Your task to perform on an android device: Clear the cart on target.com. Image 0: 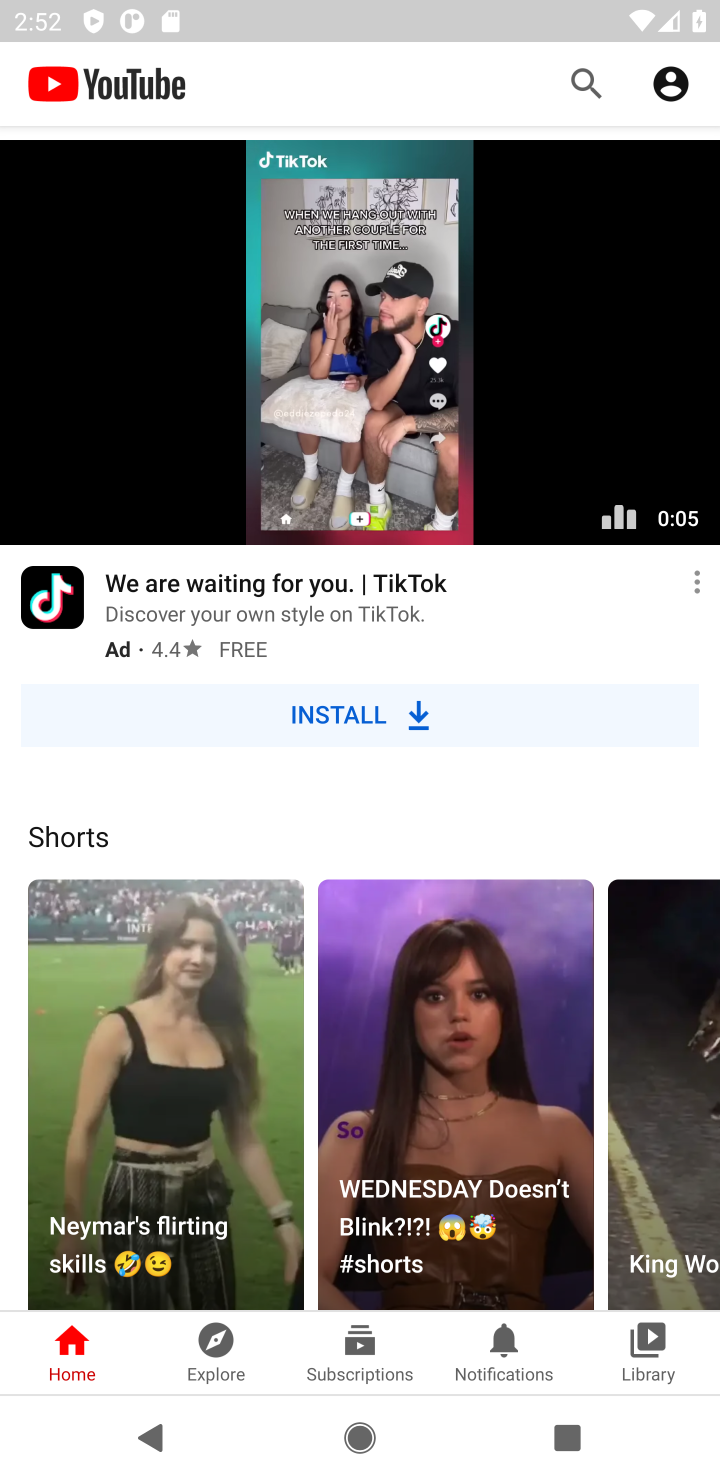
Step 0: press home button
Your task to perform on an android device: Clear the cart on target.com. Image 1: 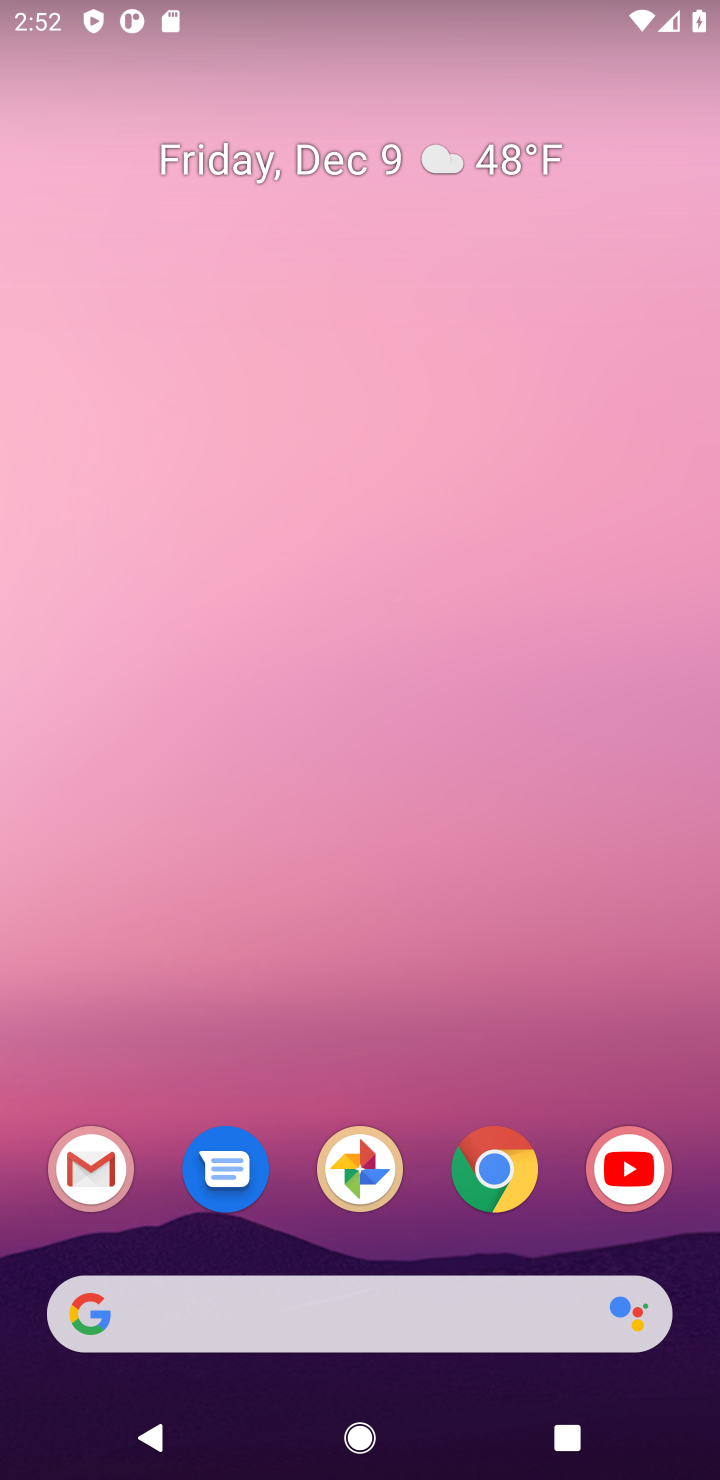
Step 1: click (488, 1186)
Your task to perform on an android device: Clear the cart on target.com. Image 2: 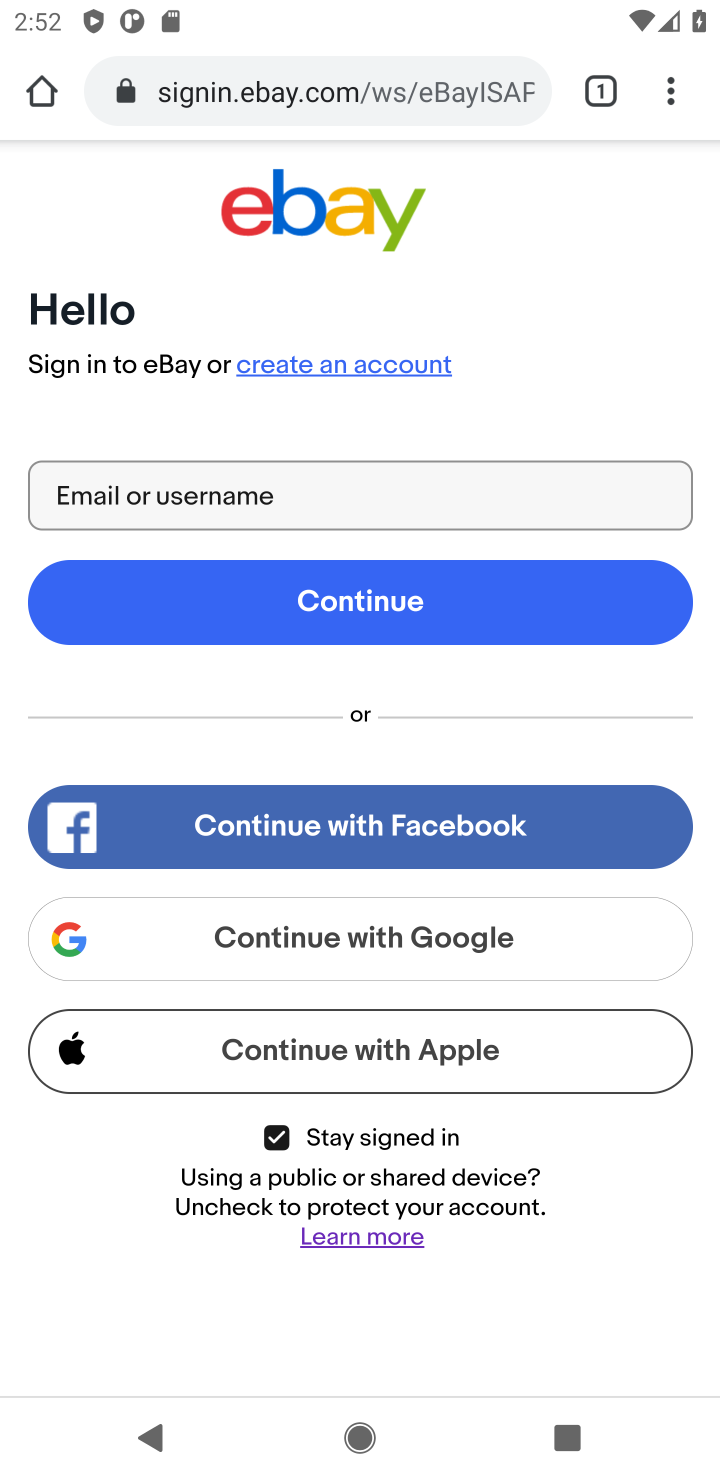
Step 2: click (470, 79)
Your task to perform on an android device: Clear the cart on target.com. Image 3: 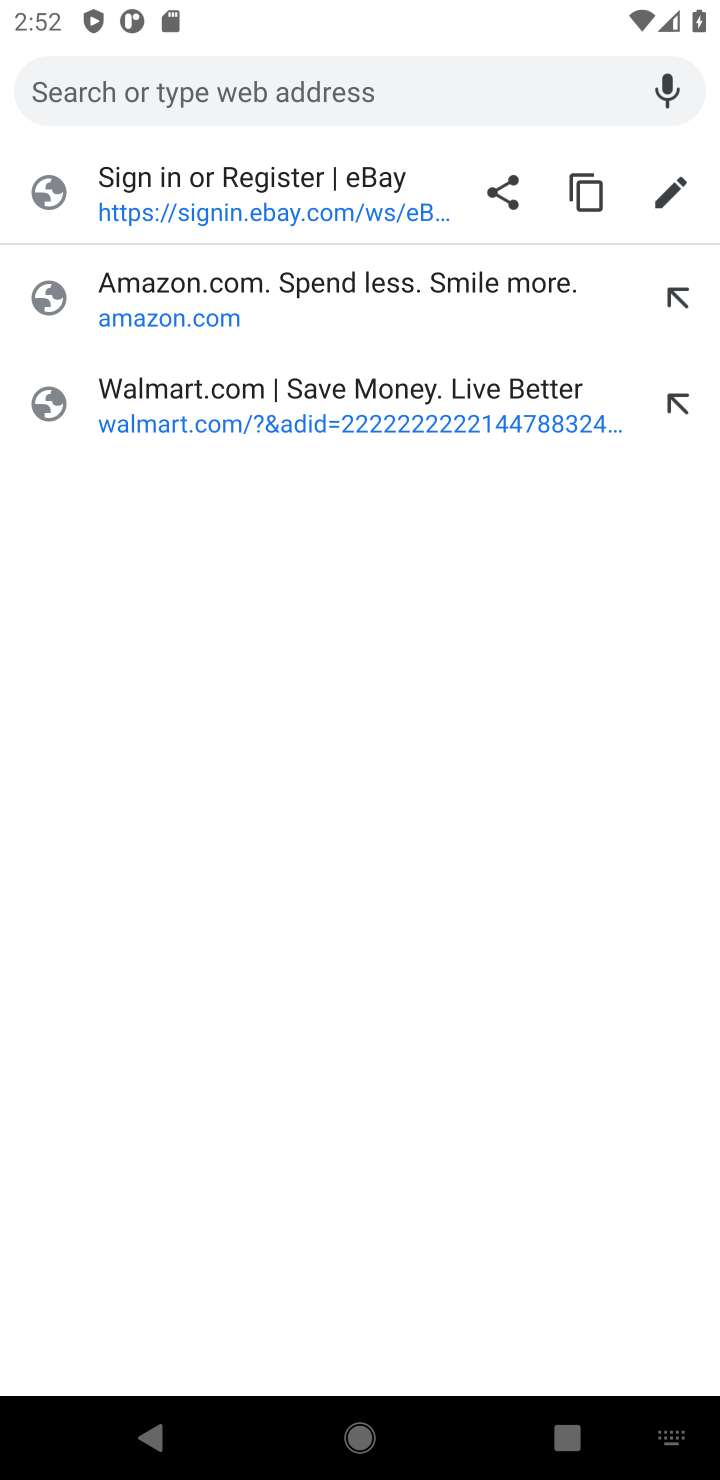
Step 3: press enter
Your task to perform on an android device: Clear the cart on target.com. Image 4: 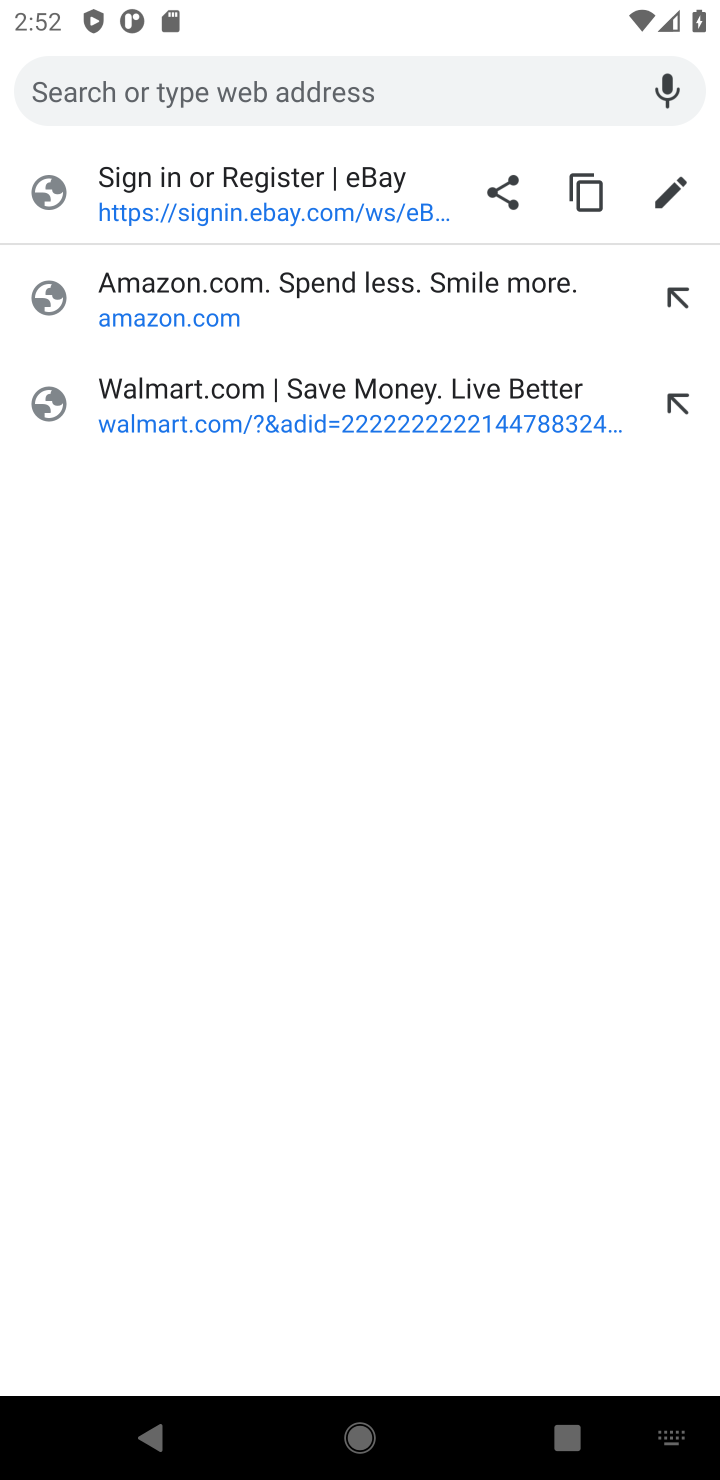
Step 4: type "target.com"
Your task to perform on an android device: Clear the cart on target.com. Image 5: 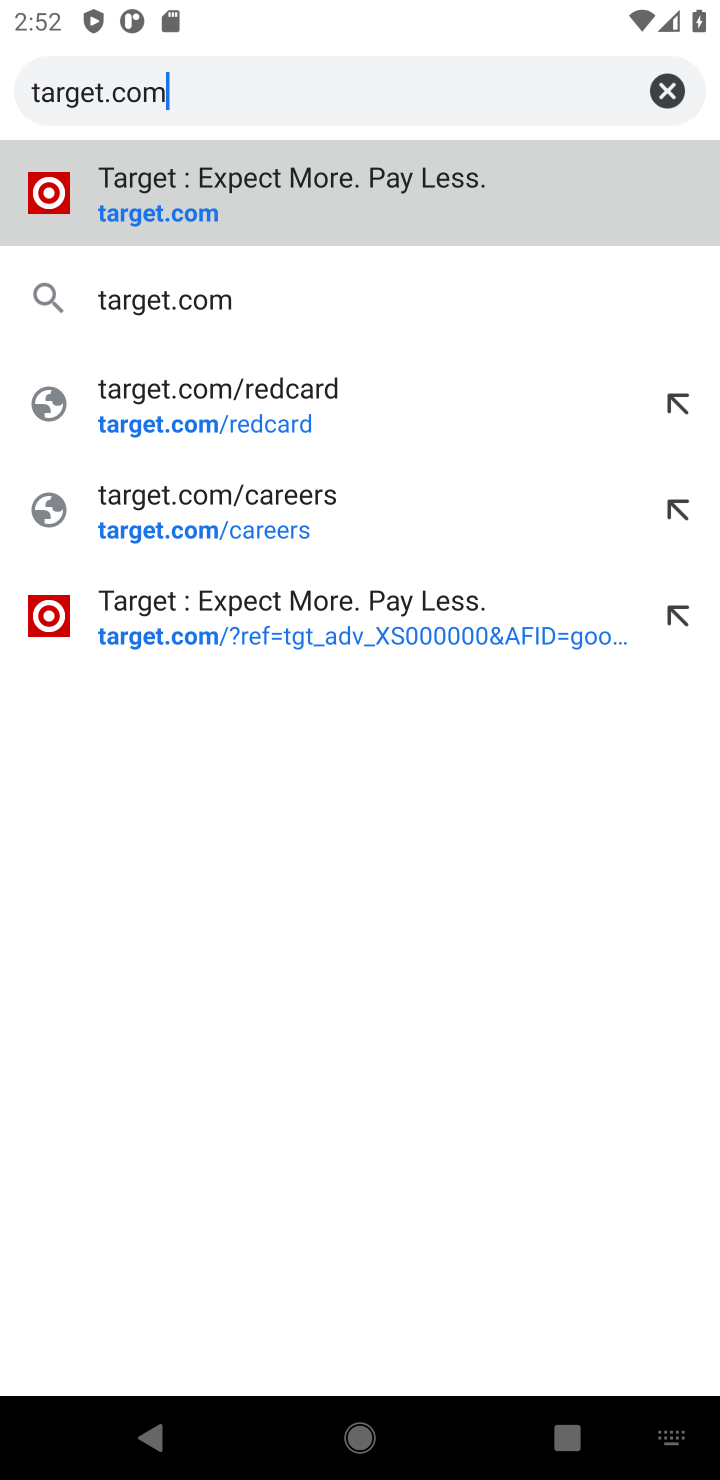
Step 5: click (201, 304)
Your task to perform on an android device: Clear the cart on target.com. Image 6: 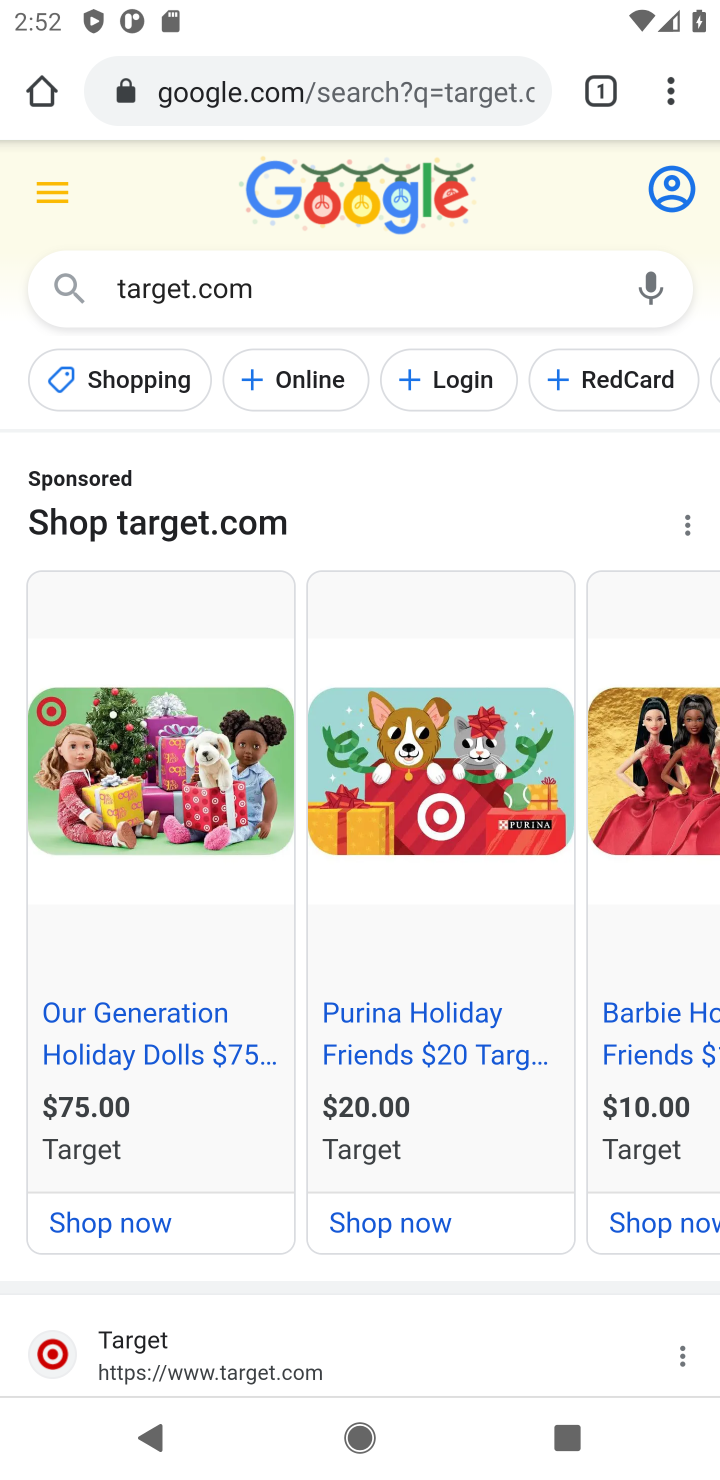
Step 6: click (259, 1370)
Your task to perform on an android device: Clear the cart on target.com. Image 7: 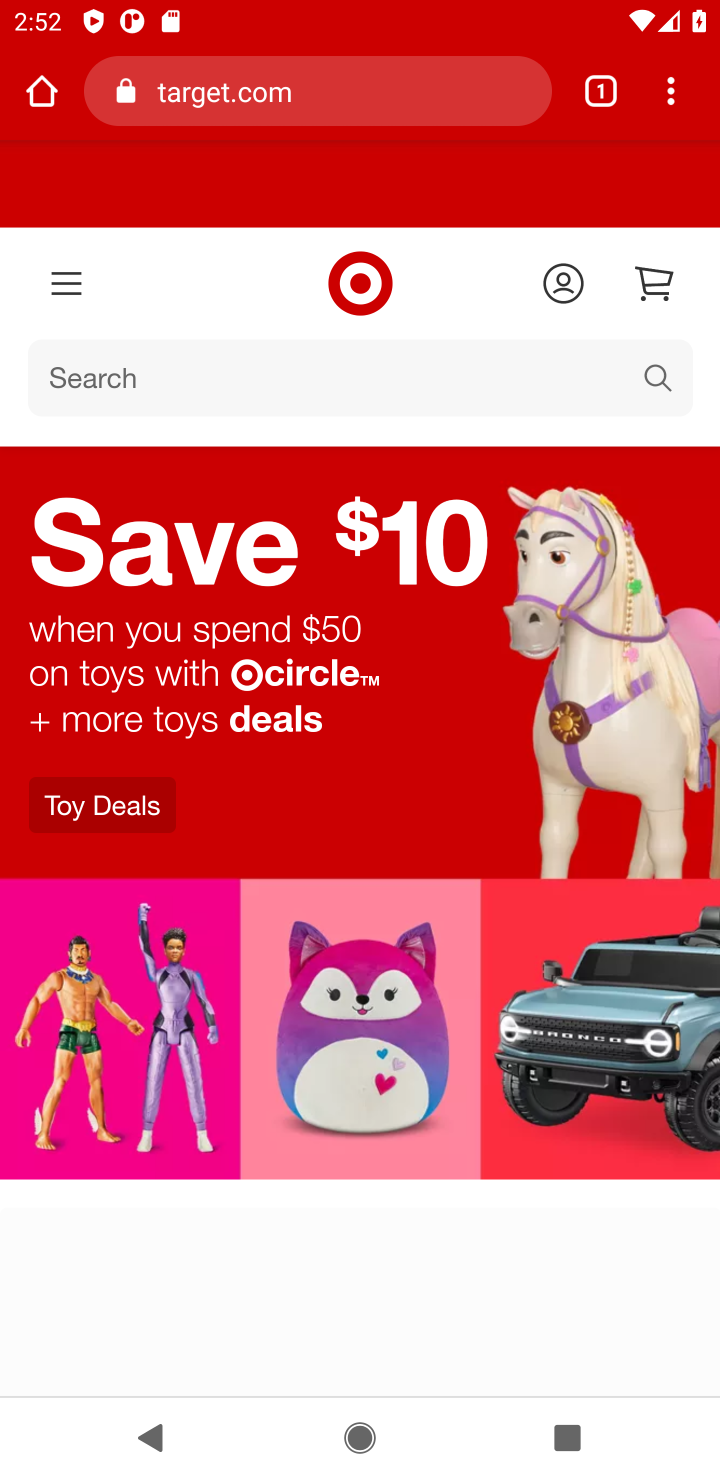
Step 7: click (654, 283)
Your task to perform on an android device: Clear the cart on target.com. Image 8: 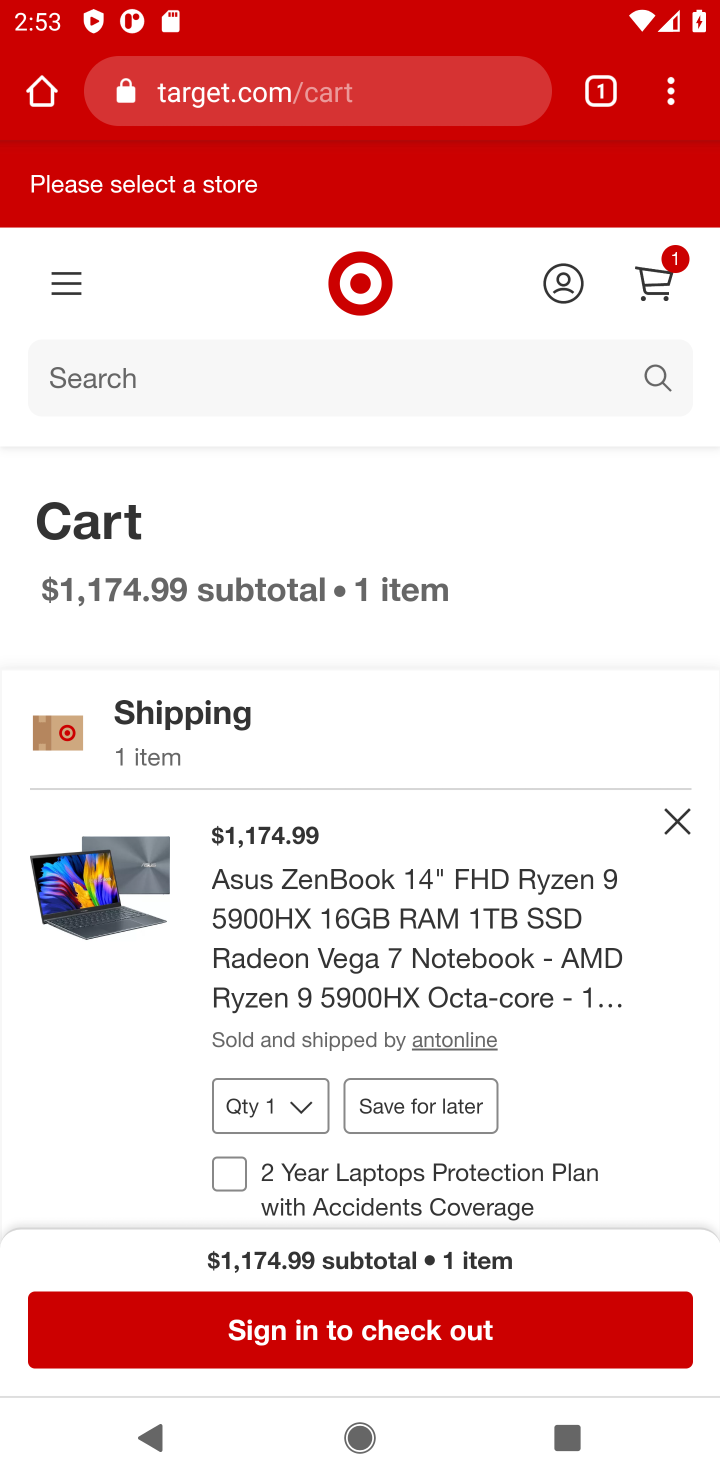
Step 8: click (683, 821)
Your task to perform on an android device: Clear the cart on target.com. Image 9: 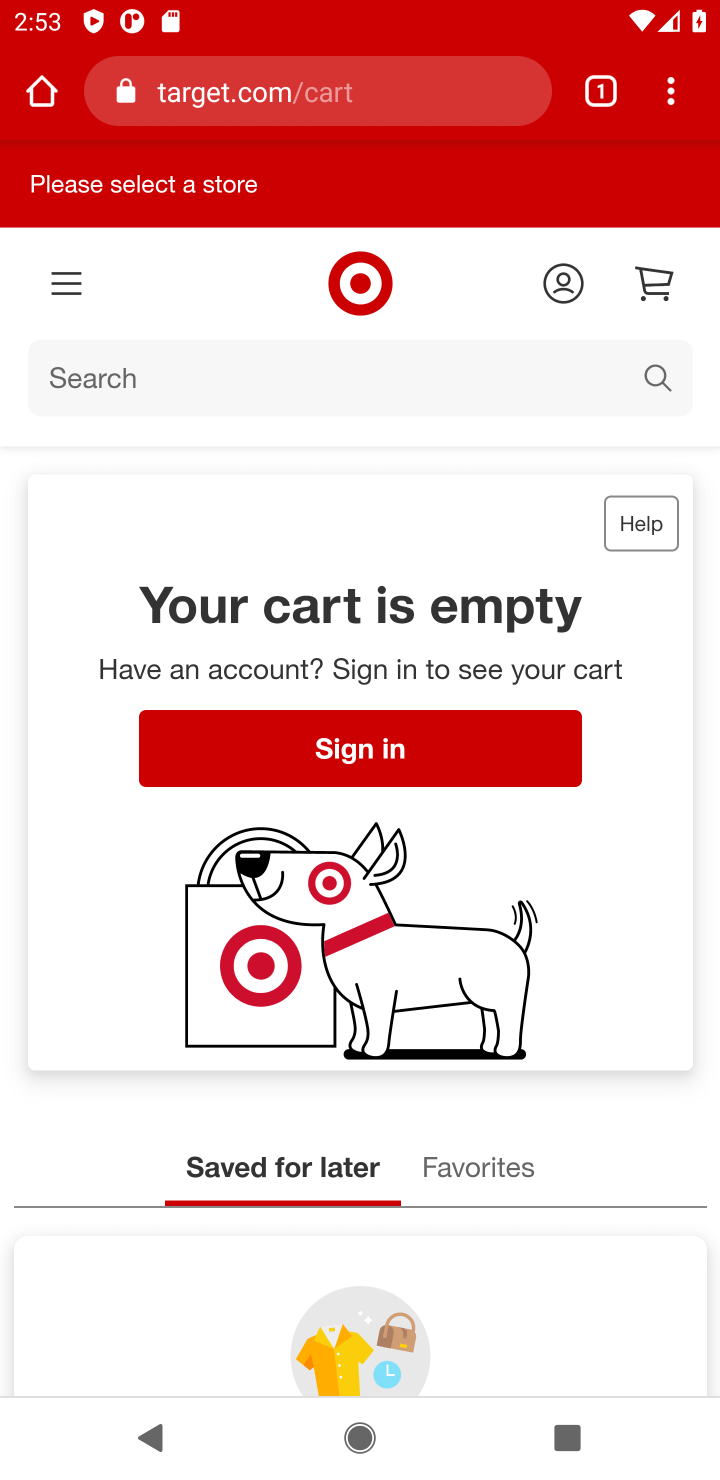
Step 9: task complete